Your task to perform on an android device: Look up the best rated bike seats on Target Image 0: 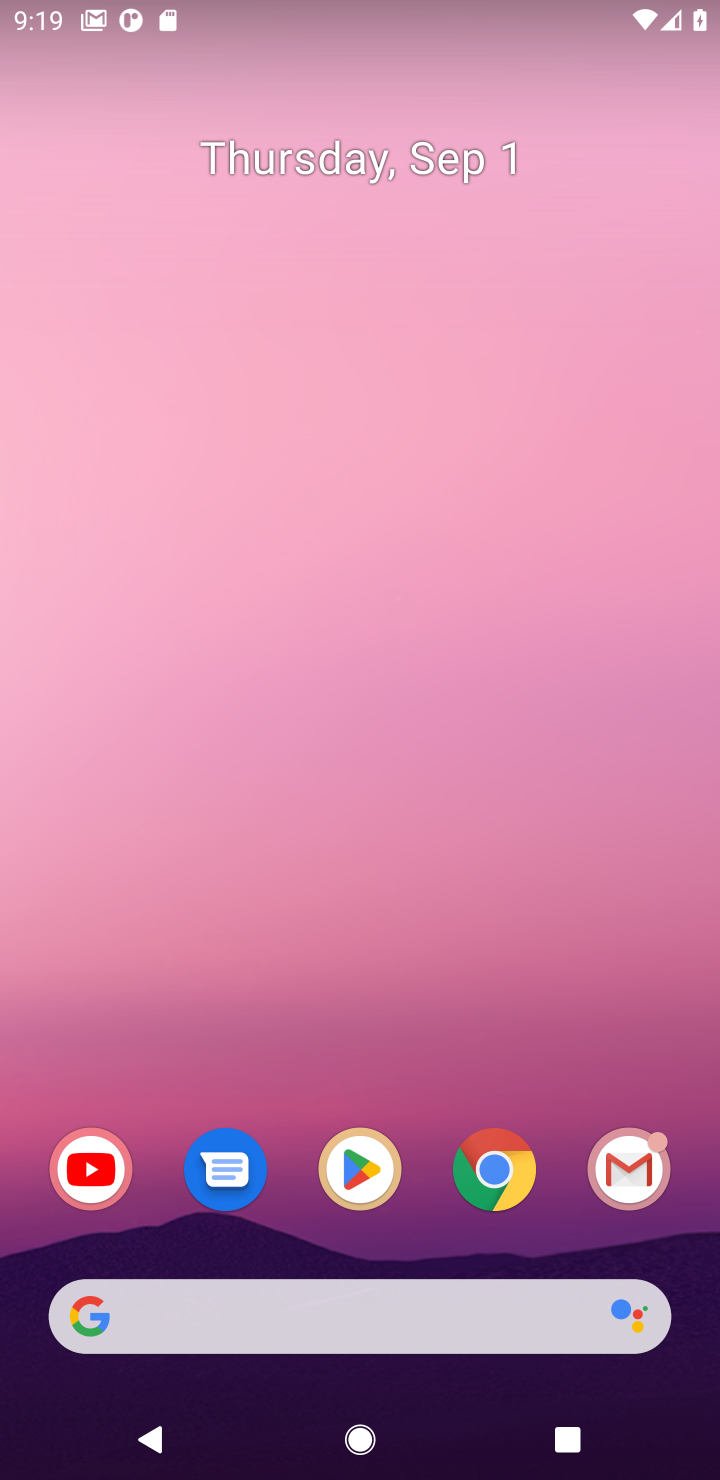
Step 0: drag from (445, 466) to (445, 385)
Your task to perform on an android device: Look up the best rated bike seats on Target Image 1: 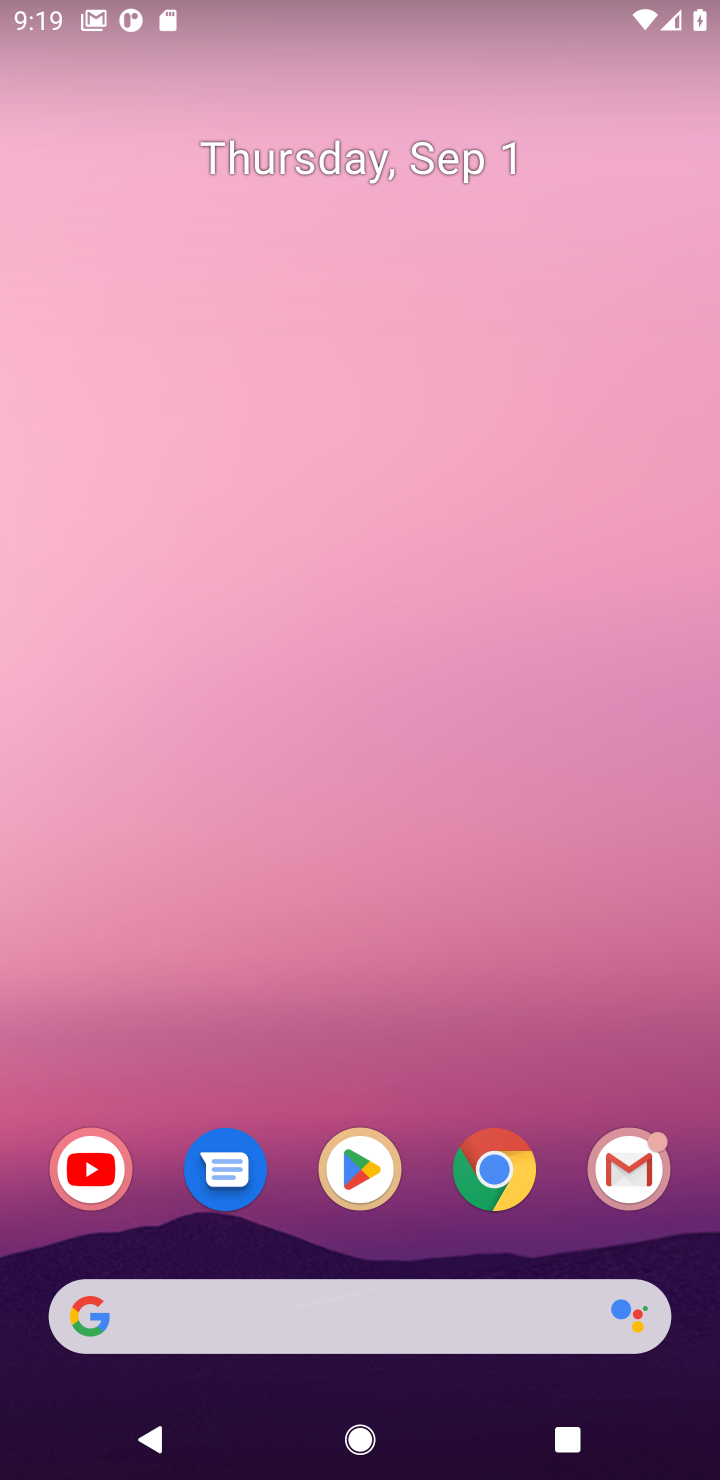
Step 1: drag from (433, 933) to (466, 300)
Your task to perform on an android device: Look up the best rated bike seats on Target Image 2: 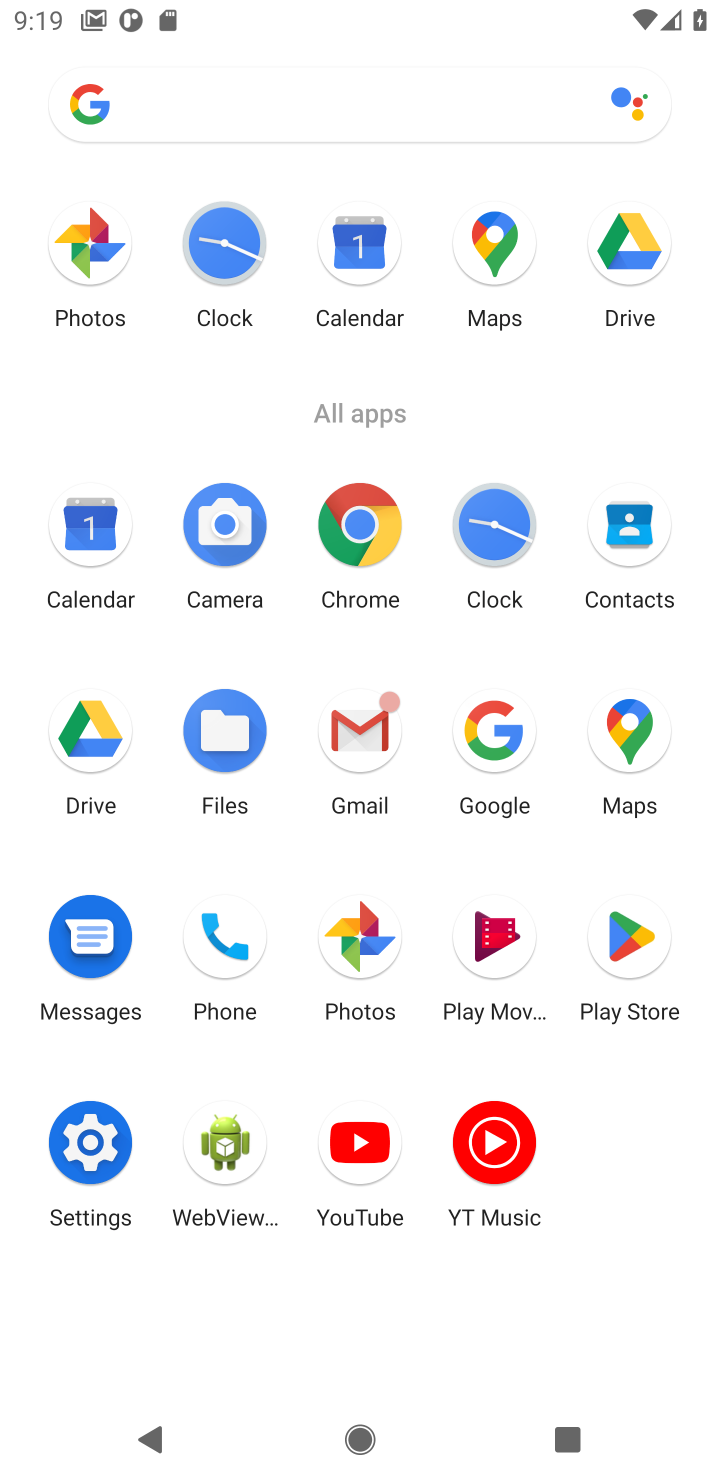
Step 2: click (355, 528)
Your task to perform on an android device: Look up the best rated bike seats on Target Image 3: 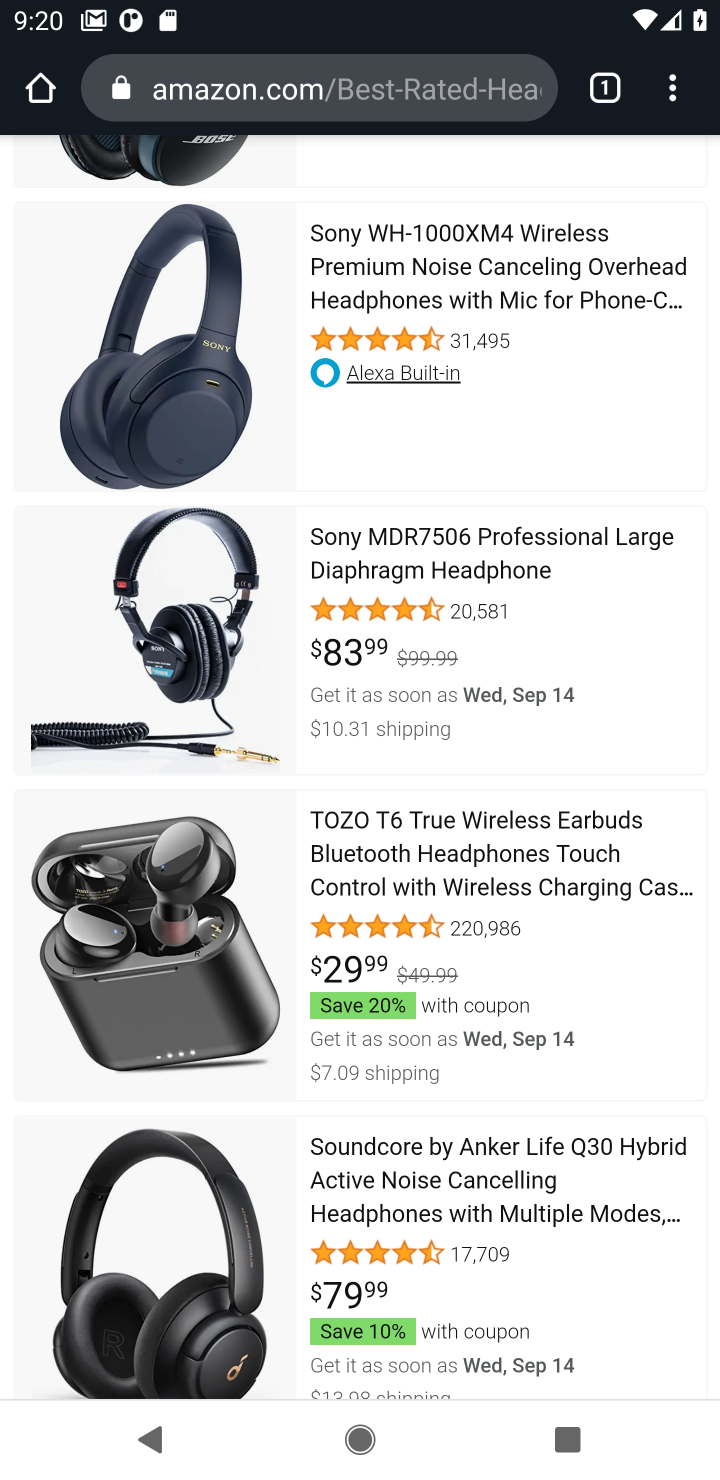
Step 3: click (385, 88)
Your task to perform on an android device: Look up the best rated bike seats on Target Image 4: 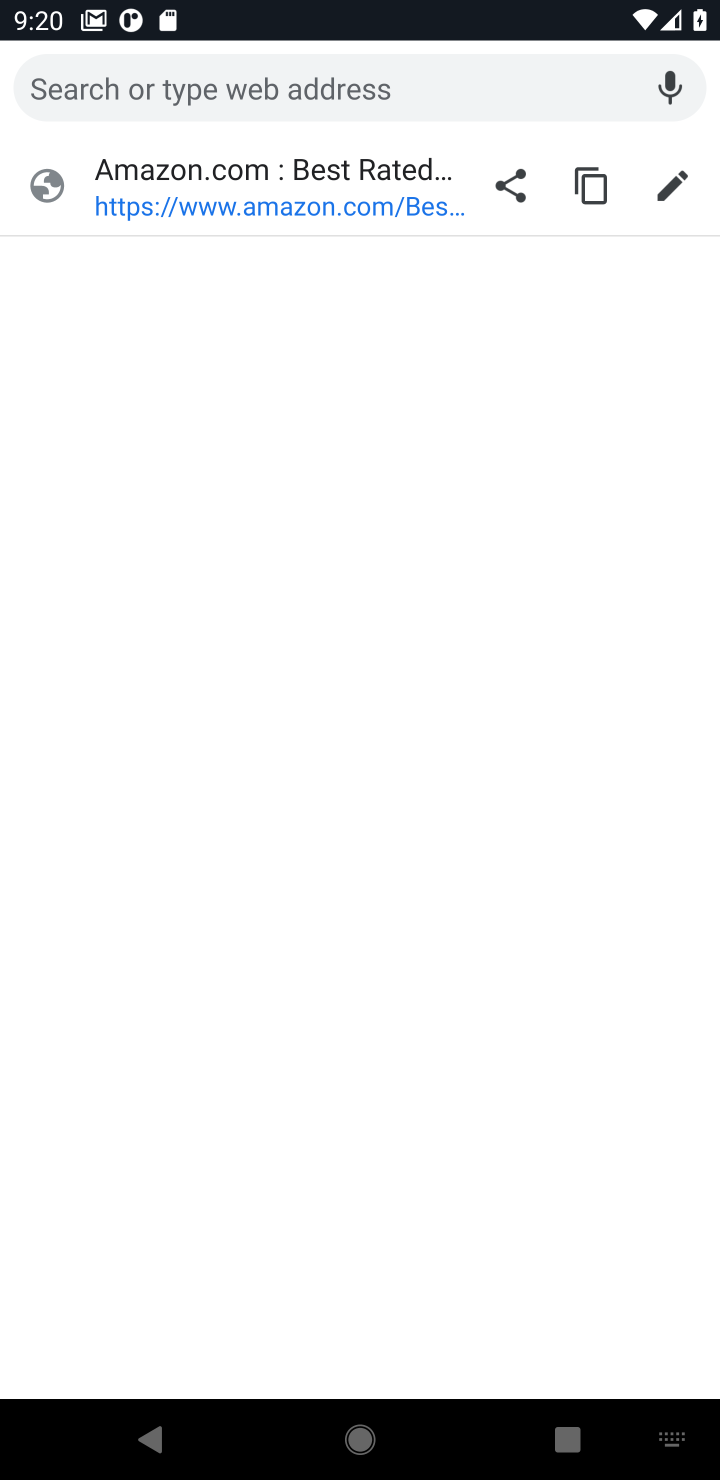
Step 4: type "best rated bike seats on Target"
Your task to perform on an android device: Look up the best rated bike seats on Target Image 5: 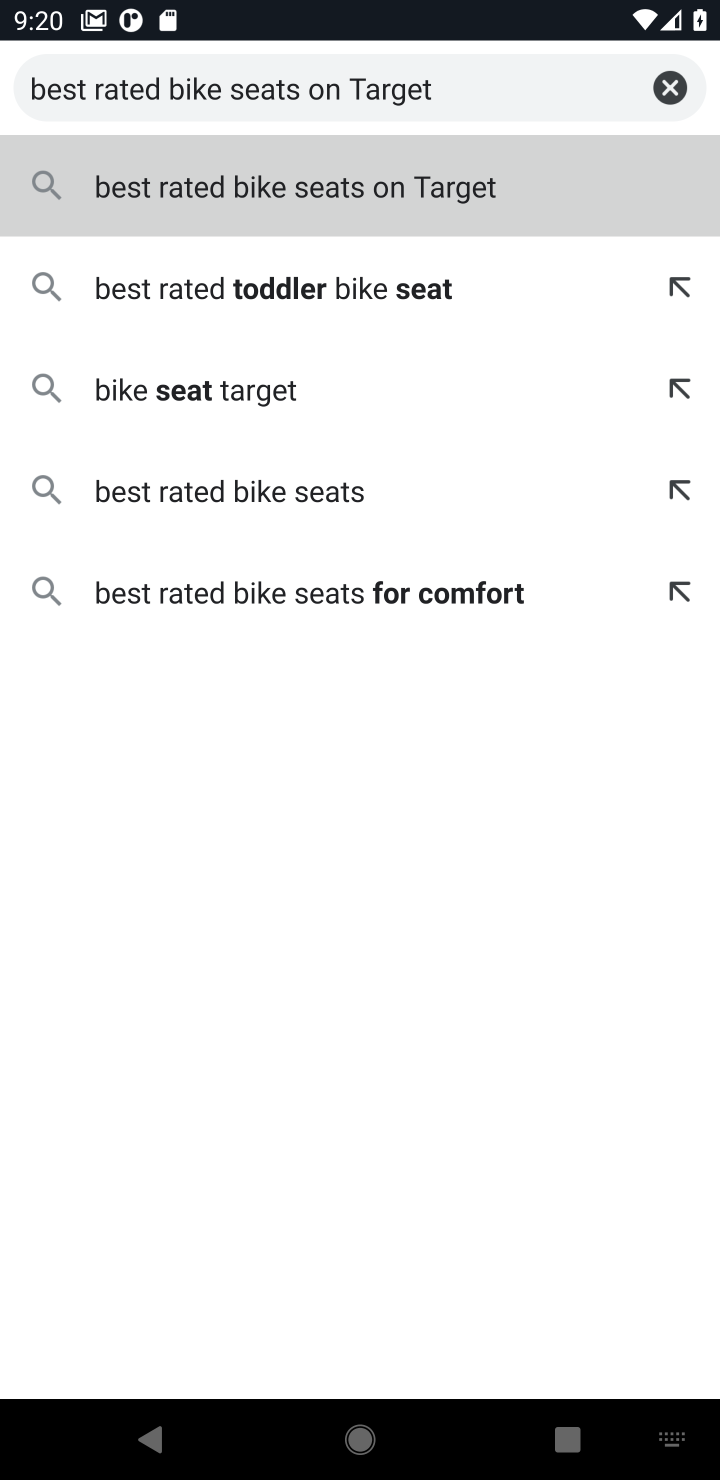
Step 5: click (234, 198)
Your task to perform on an android device: Look up the best rated bike seats on Target Image 6: 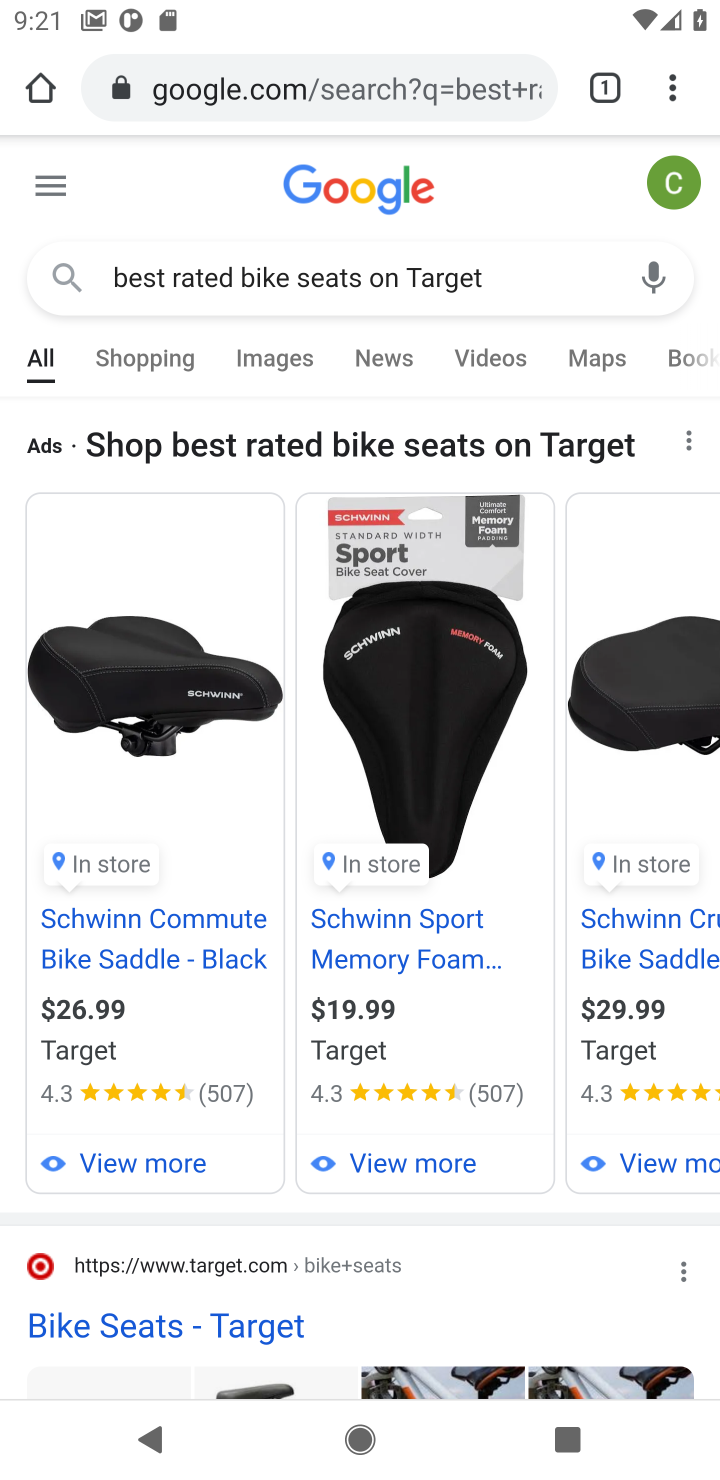
Step 6: drag from (290, 1236) to (278, 599)
Your task to perform on an android device: Look up the best rated bike seats on Target Image 7: 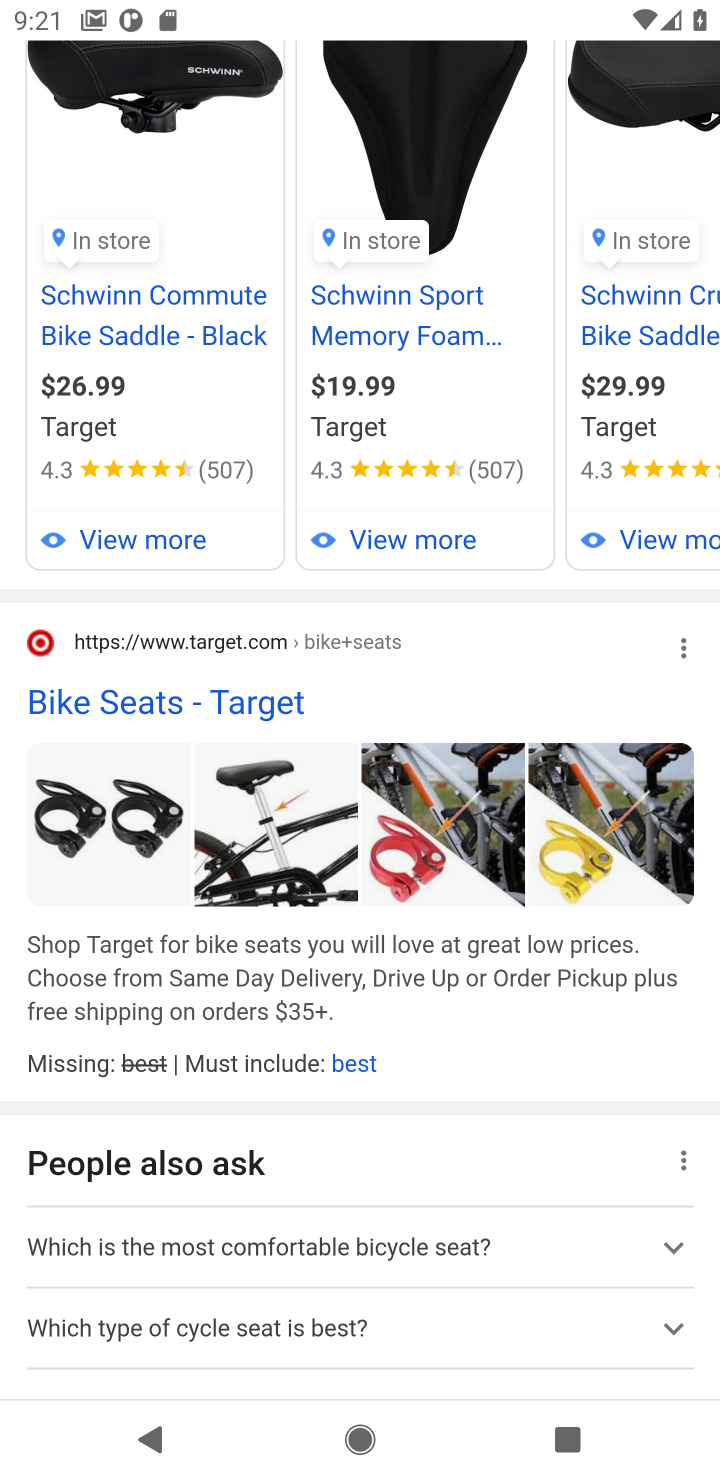
Step 7: click (131, 697)
Your task to perform on an android device: Look up the best rated bike seats on Target Image 8: 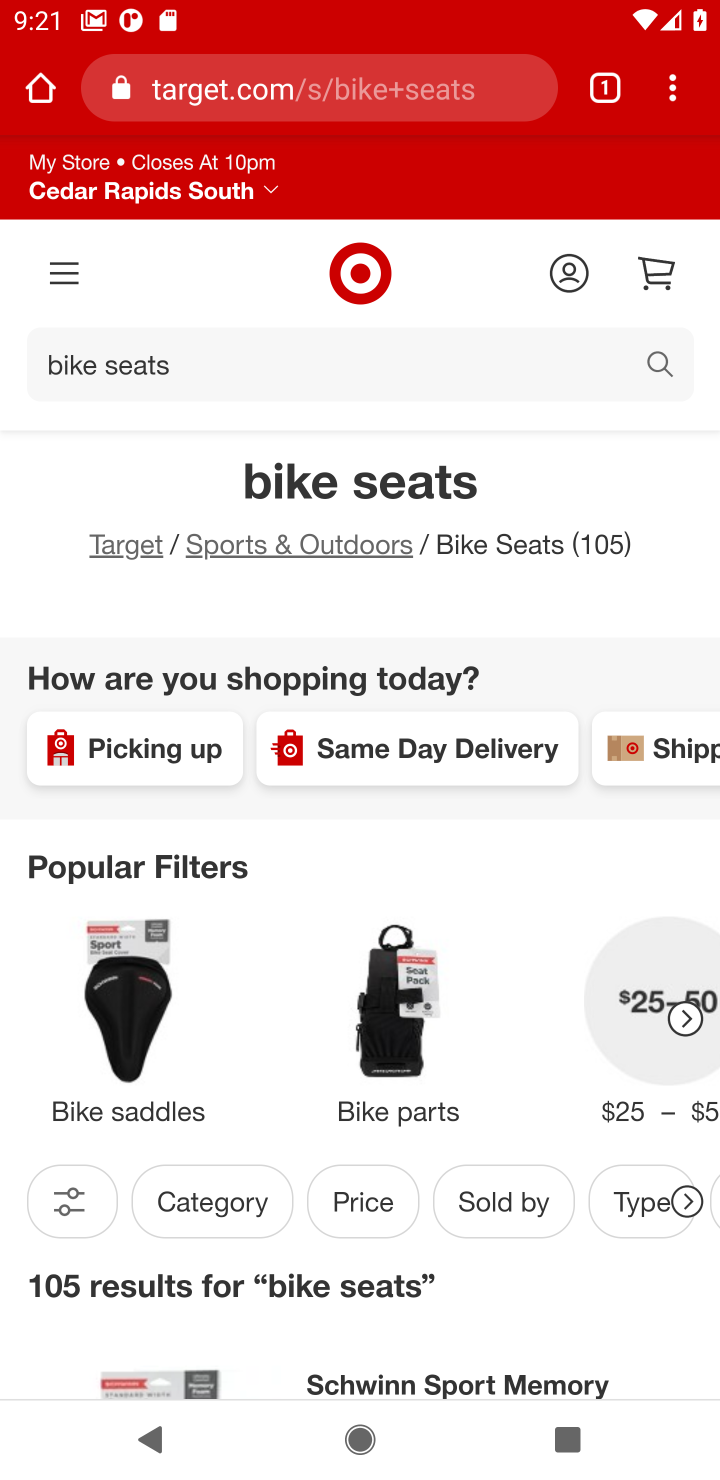
Step 8: task complete